Your task to perform on an android device: Do I have any events tomorrow? Image 0: 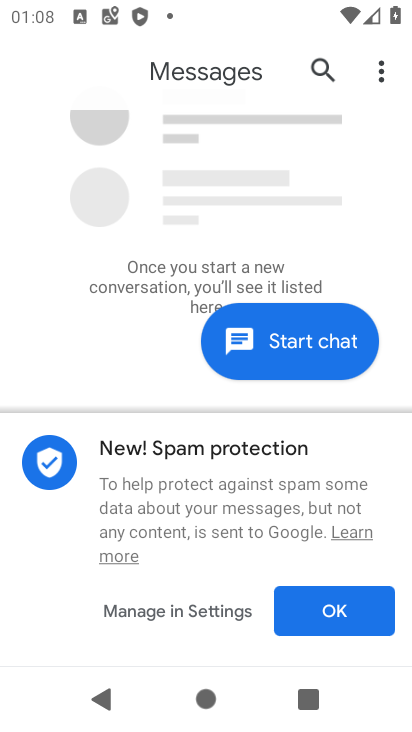
Step 0: press home button
Your task to perform on an android device: Do I have any events tomorrow? Image 1: 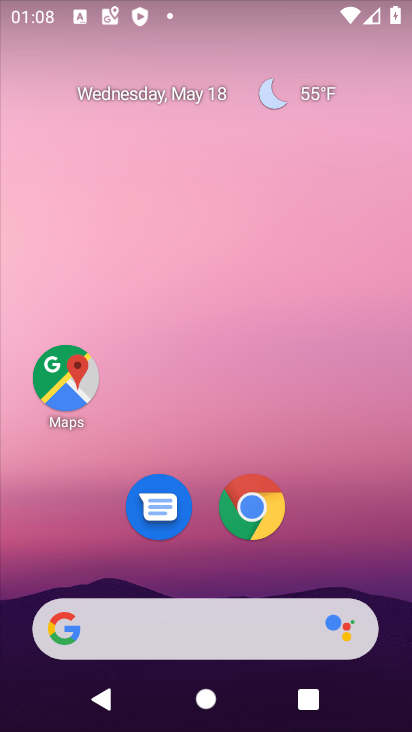
Step 1: drag from (388, 611) to (320, 59)
Your task to perform on an android device: Do I have any events tomorrow? Image 2: 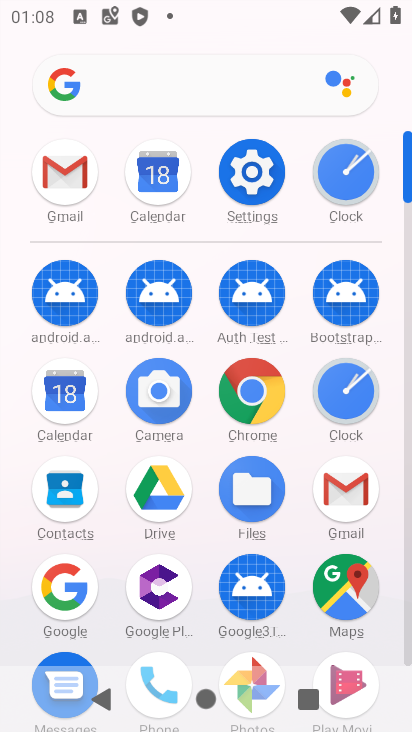
Step 2: click (405, 630)
Your task to perform on an android device: Do I have any events tomorrow? Image 3: 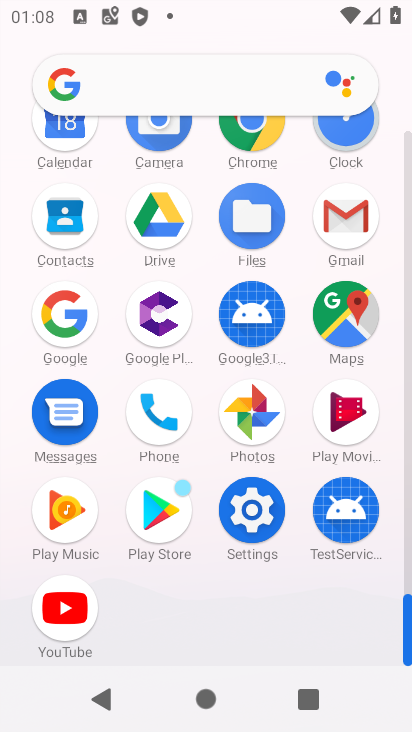
Step 3: click (59, 127)
Your task to perform on an android device: Do I have any events tomorrow? Image 4: 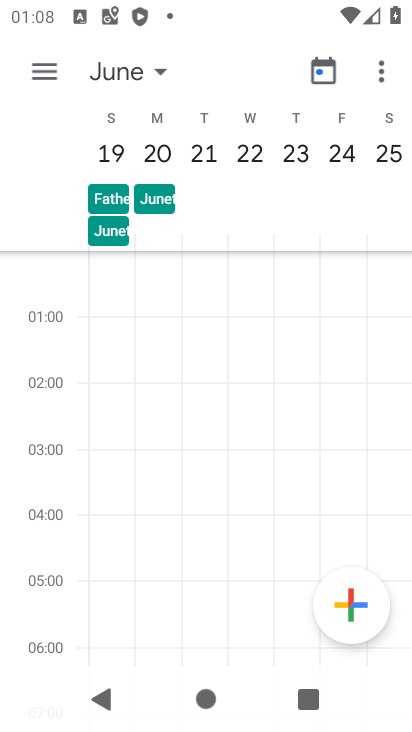
Step 4: click (48, 70)
Your task to perform on an android device: Do I have any events tomorrow? Image 5: 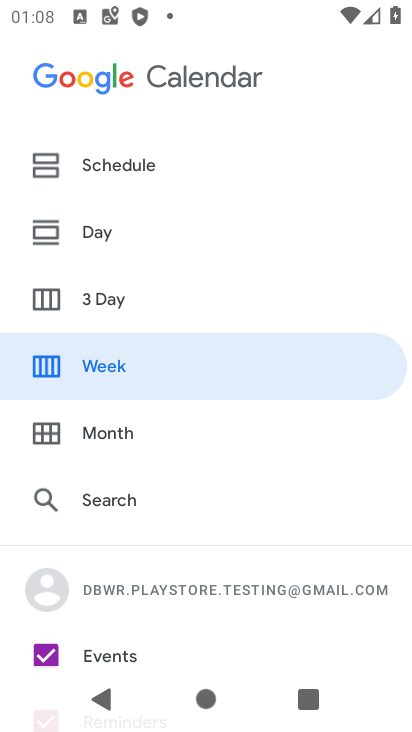
Step 5: click (101, 215)
Your task to perform on an android device: Do I have any events tomorrow? Image 6: 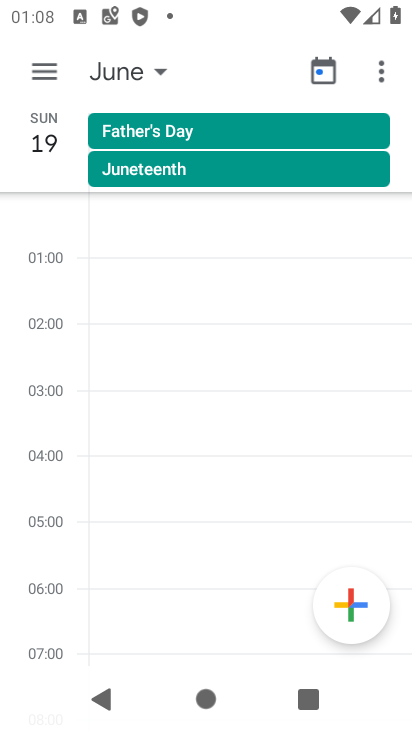
Step 6: click (167, 68)
Your task to perform on an android device: Do I have any events tomorrow? Image 7: 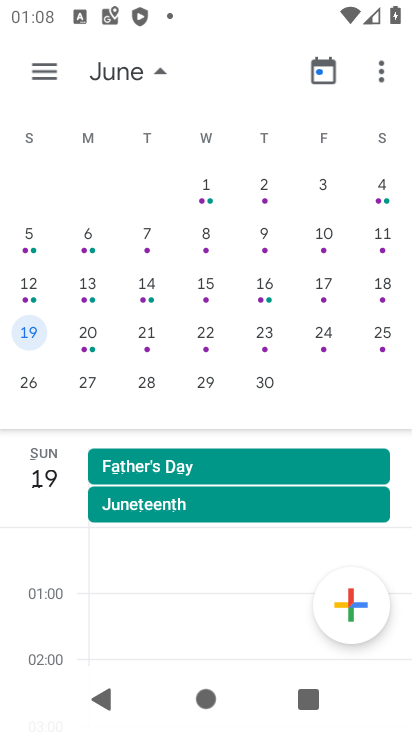
Step 7: drag from (74, 302) to (335, 249)
Your task to perform on an android device: Do I have any events tomorrow? Image 8: 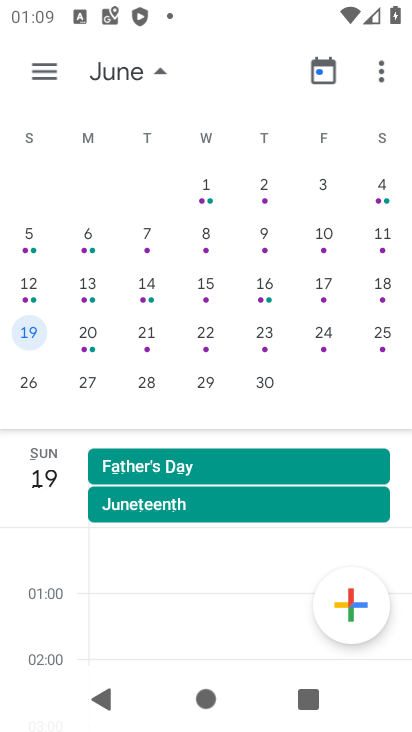
Step 8: drag from (75, 282) to (332, 280)
Your task to perform on an android device: Do I have any events tomorrow? Image 9: 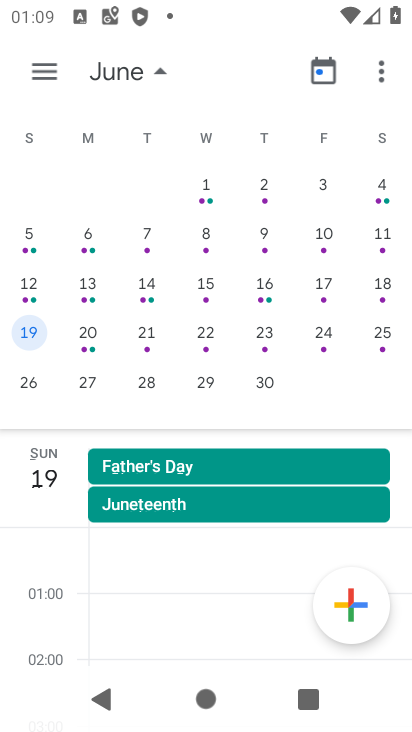
Step 9: drag from (60, 261) to (357, 283)
Your task to perform on an android device: Do I have any events tomorrow? Image 10: 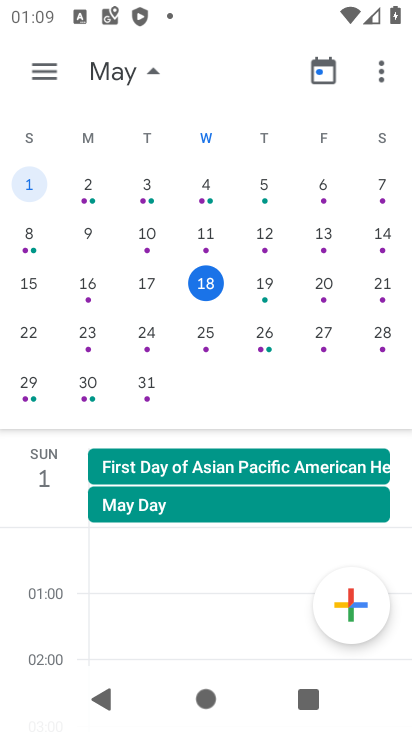
Step 10: click (262, 288)
Your task to perform on an android device: Do I have any events tomorrow? Image 11: 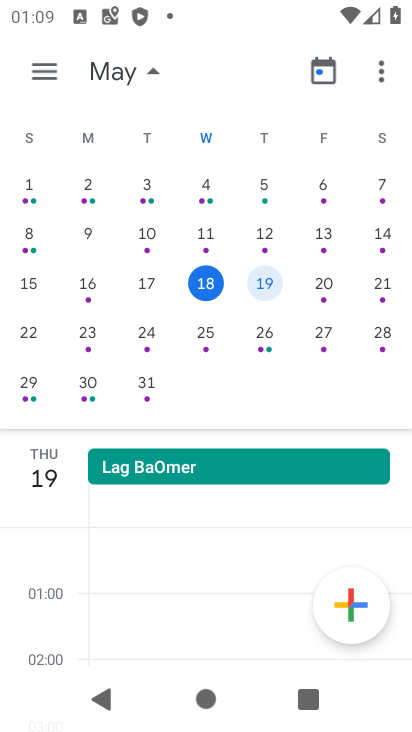
Step 11: task complete